Your task to perform on an android device: Go to privacy settings Image 0: 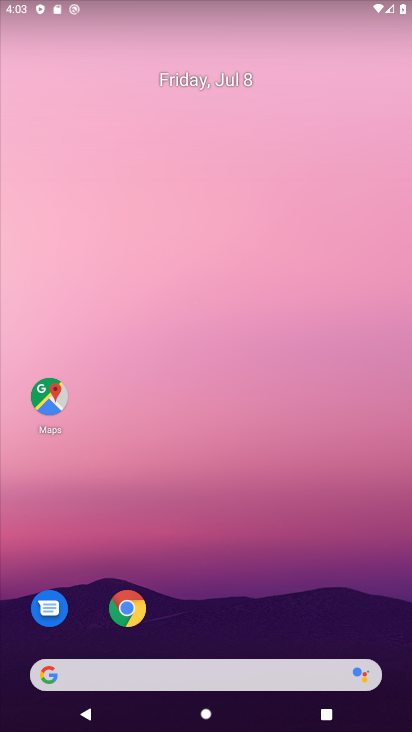
Step 0: press home button
Your task to perform on an android device: Go to privacy settings Image 1: 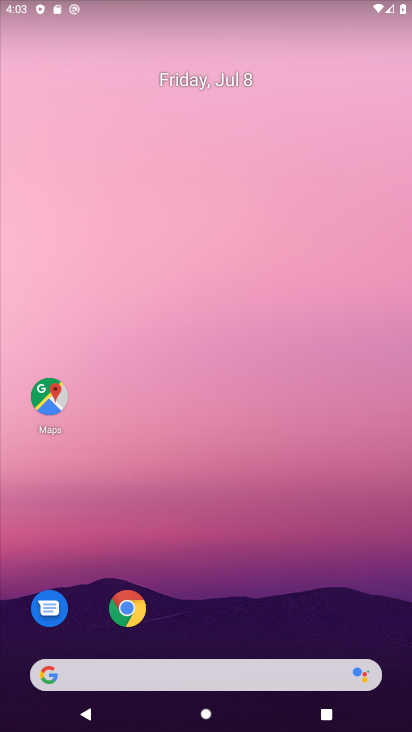
Step 1: drag from (237, 590) to (362, 95)
Your task to perform on an android device: Go to privacy settings Image 2: 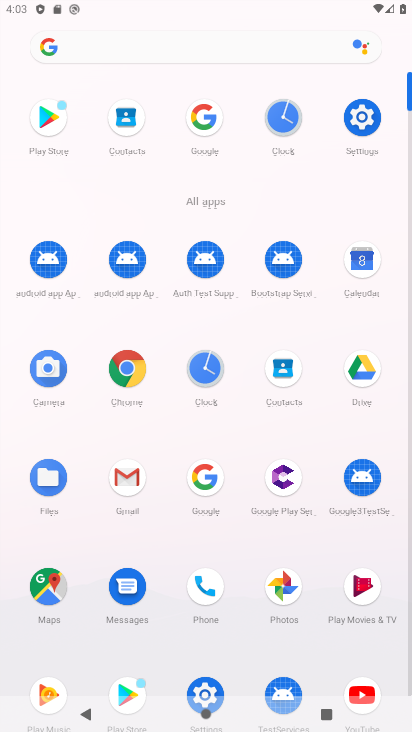
Step 2: click (361, 116)
Your task to perform on an android device: Go to privacy settings Image 3: 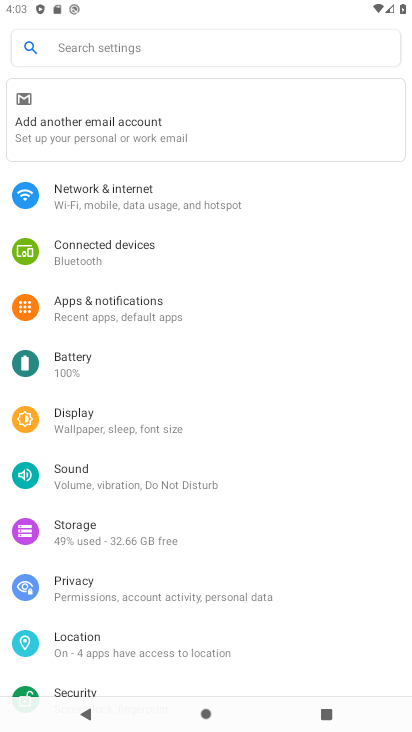
Step 3: click (88, 572)
Your task to perform on an android device: Go to privacy settings Image 4: 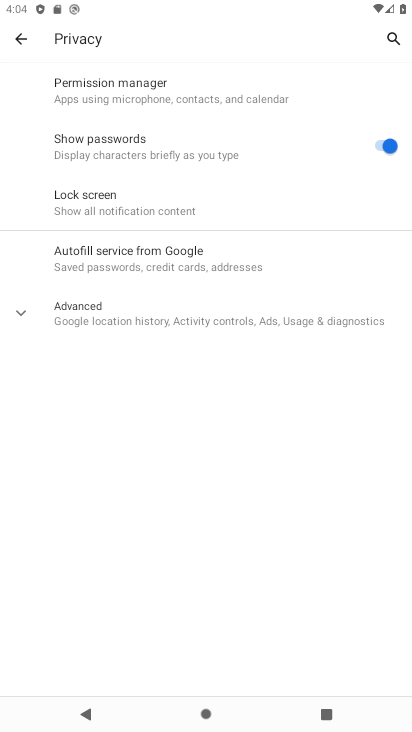
Step 4: task complete